Your task to perform on an android device: open sync settings in chrome Image 0: 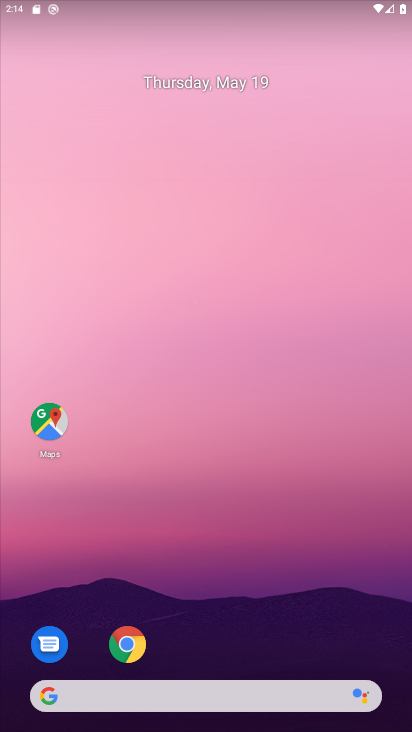
Step 0: click (128, 659)
Your task to perform on an android device: open sync settings in chrome Image 1: 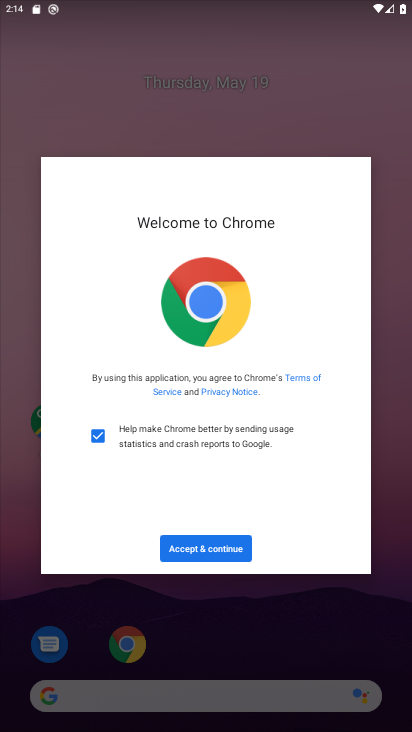
Step 1: click (225, 548)
Your task to perform on an android device: open sync settings in chrome Image 2: 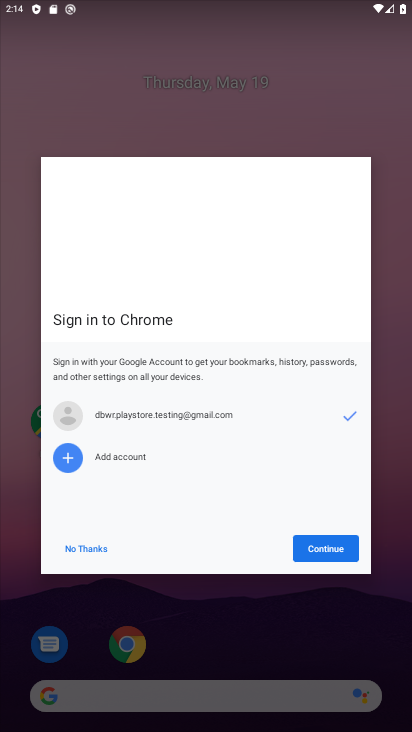
Step 2: click (336, 545)
Your task to perform on an android device: open sync settings in chrome Image 3: 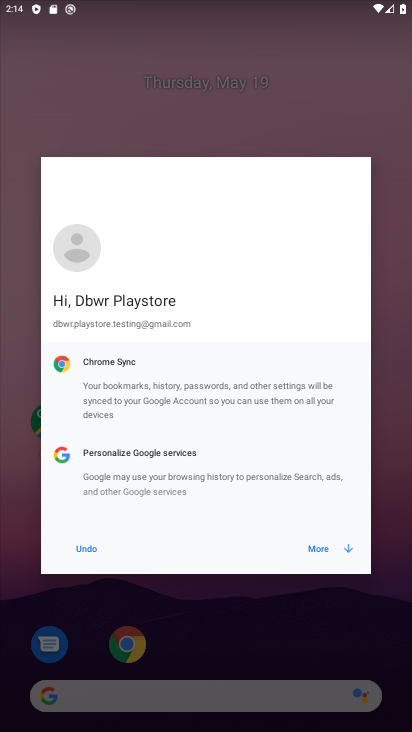
Step 3: click (324, 556)
Your task to perform on an android device: open sync settings in chrome Image 4: 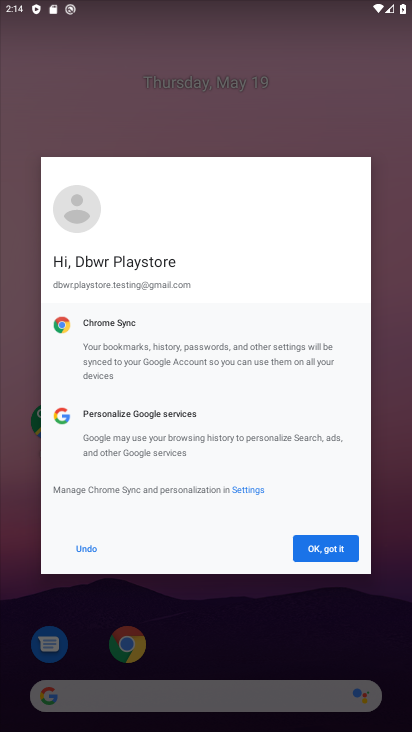
Step 4: click (324, 556)
Your task to perform on an android device: open sync settings in chrome Image 5: 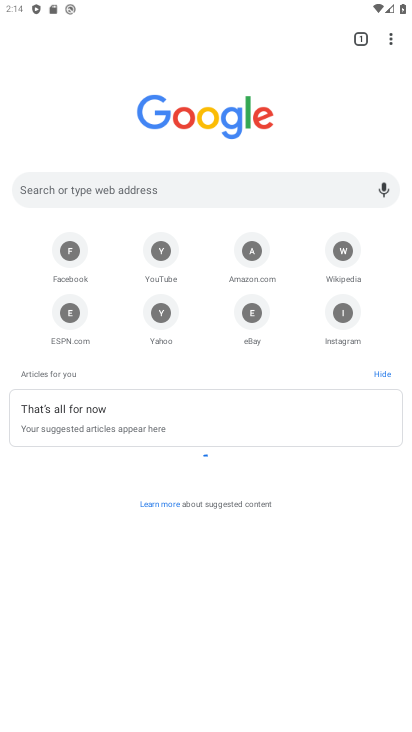
Step 5: drag from (389, 42) to (259, 331)
Your task to perform on an android device: open sync settings in chrome Image 6: 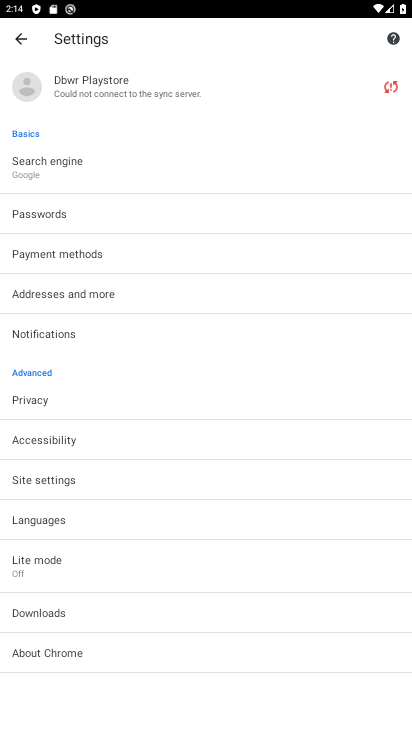
Step 6: click (63, 484)
Your task to perform on an android device: open sync settings in chrome Image 7: 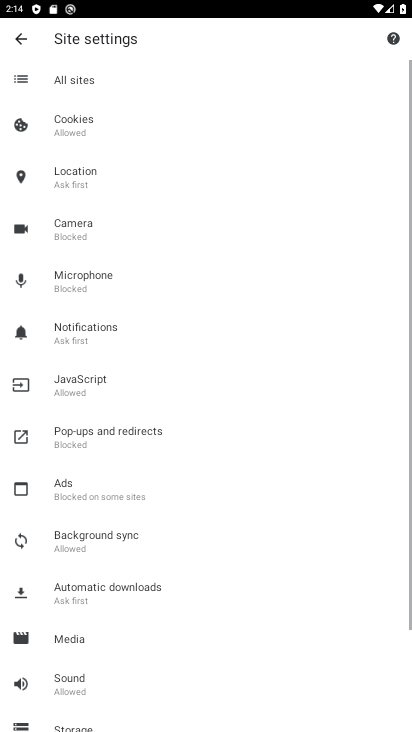
Step 7: click (109, 545)
Your task to perform on an android device: open sync settings in chrome Image 8: 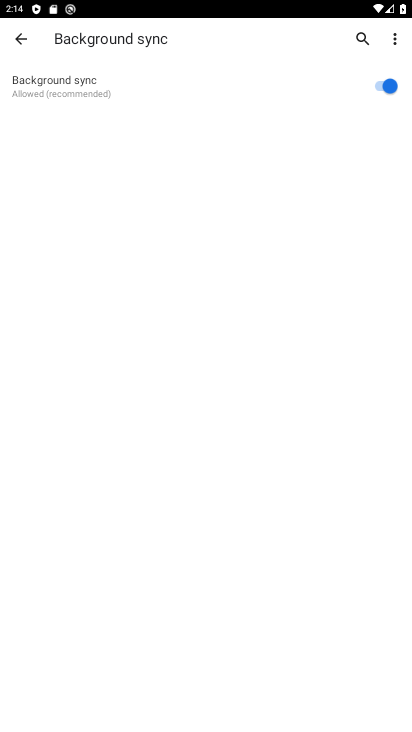
Step 8: task complete